Your task to perform on an android device: all mails in gmail Image 0: 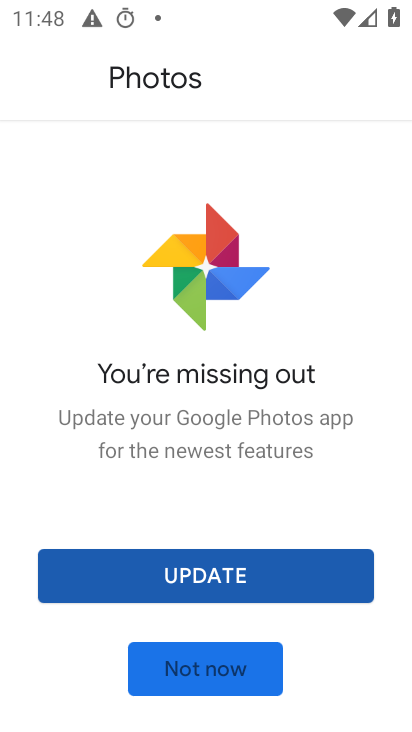
Step 0: press home button
Your task to perform on an android device: all mails in gmail Image 1: 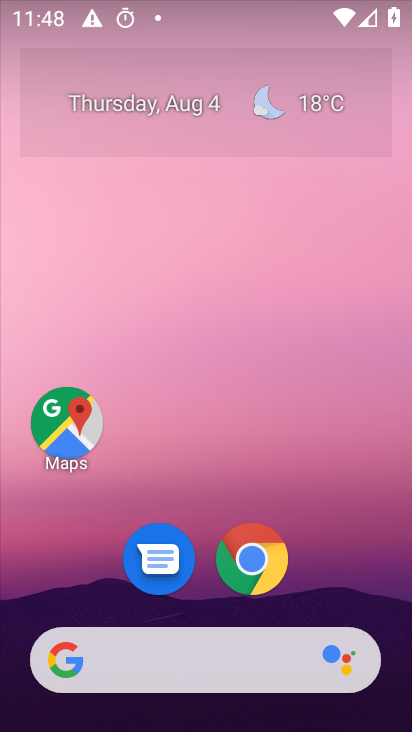
Step 1: click (27, 708)
Your task to perform on an android device: all mails in gmail Image 2: 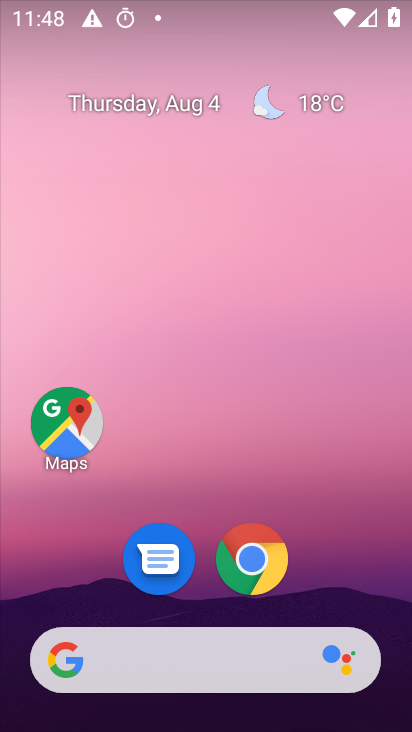
Step 2: drag from (27, 708) to (250, 281)
Your task to perform on an android device: all mails in gmail Image 3: 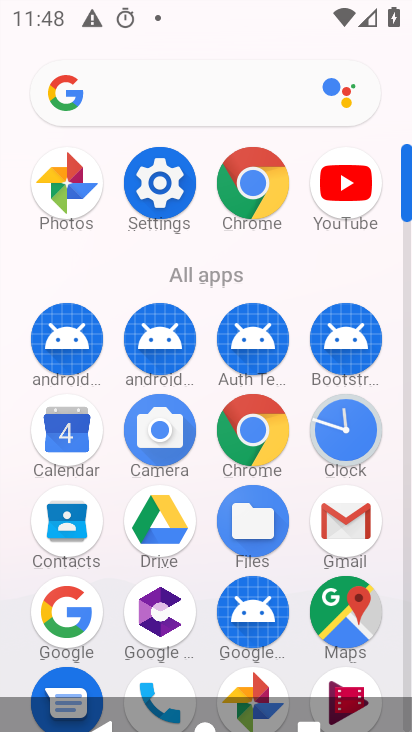
Step 3: click (338, 525)
Your task to perform on an android device: all mails in gmail Image 4: 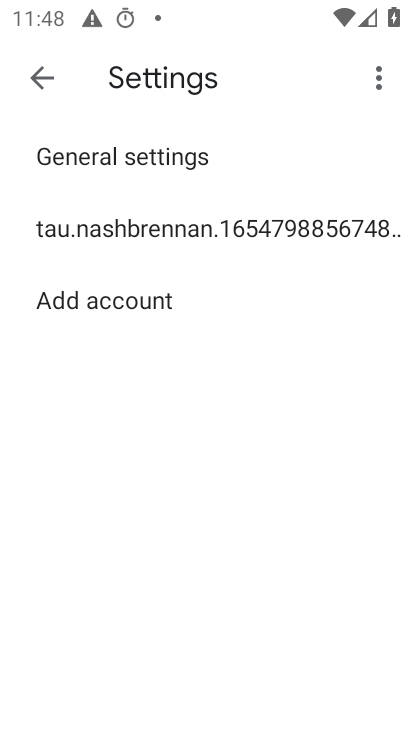
Step 4: click (31, 85)
Your task to perform on an android device: all mails in gmail Image 5: 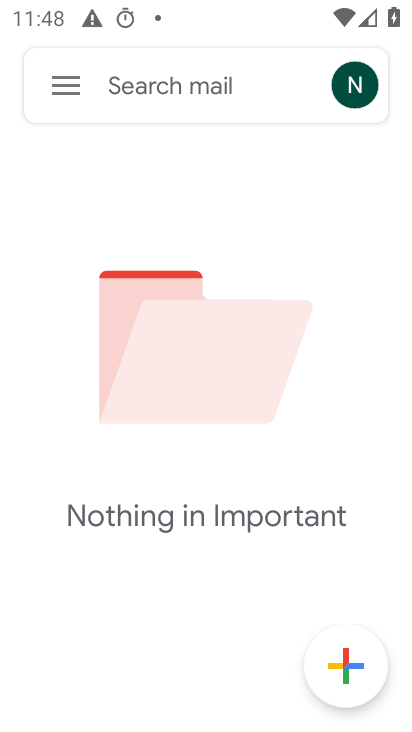
Step 5: click (58, 88)
Your task to perform on an android device: all mails in gmail Image 6: 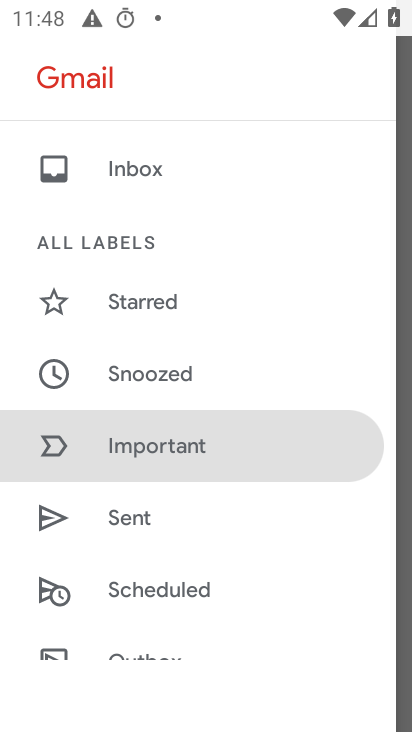
Step 6: drag from (368, 595) to (360, 462)
Your task to perform on an android device: all mails in gmail Image 7: 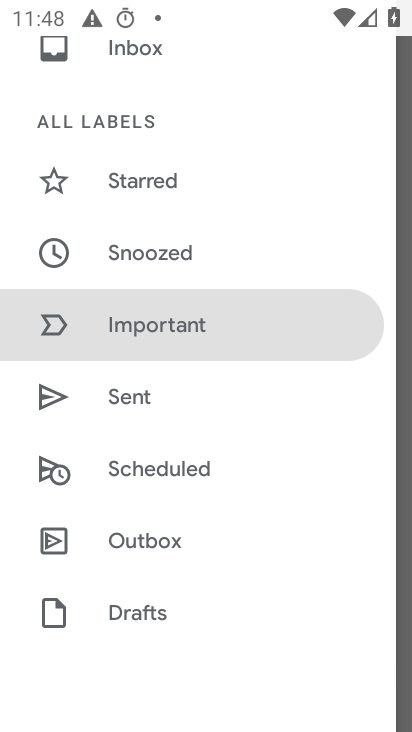
Step 7: drag from (257, 599) to (260, 534)
Your task to perform on an android device: all mails in gmail Image 8: 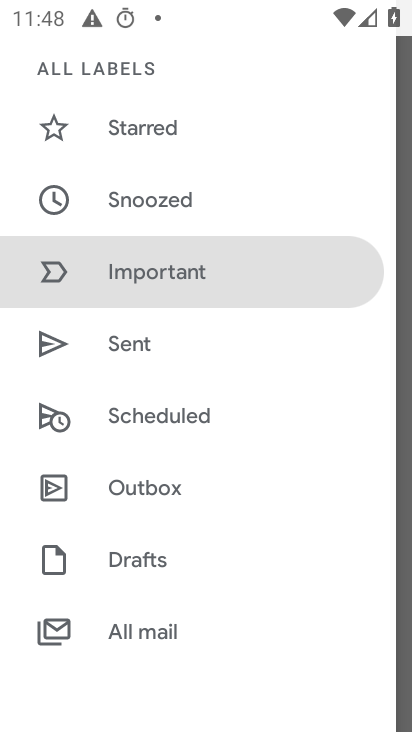
Step 8: click (149, 636)
Your task to perform on an android device: all mails in gmail Image 9: 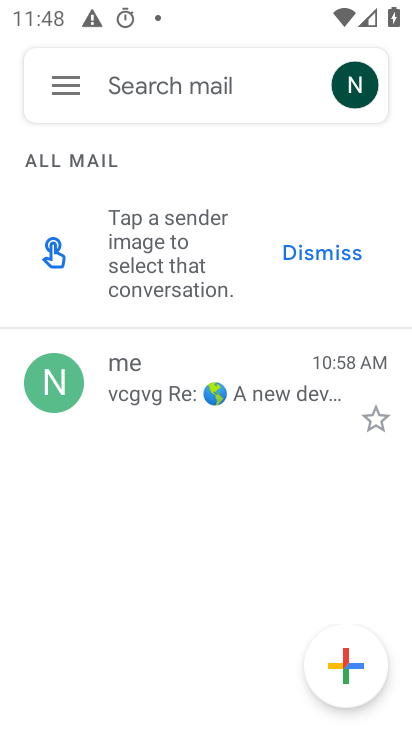
Step 9: task complete